Your task to perform on an android device: find photos in the google photos app Image 0: 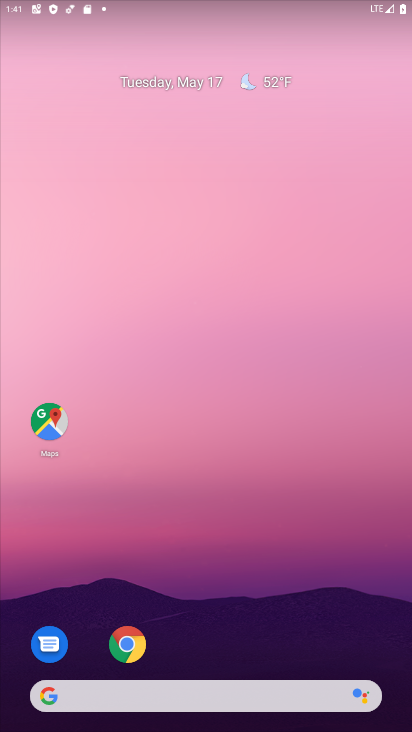
Step 0: drag from (238, 690) to (190, 202)
Your task to perform on an android device: find photos in the google photos app Image 1: 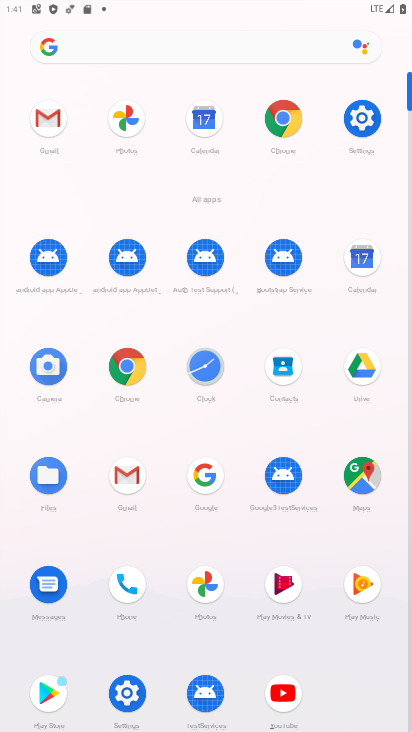
Step 1: click (196, 583)
Your task to perform on an android device: find photos in the google photos app Image 2: 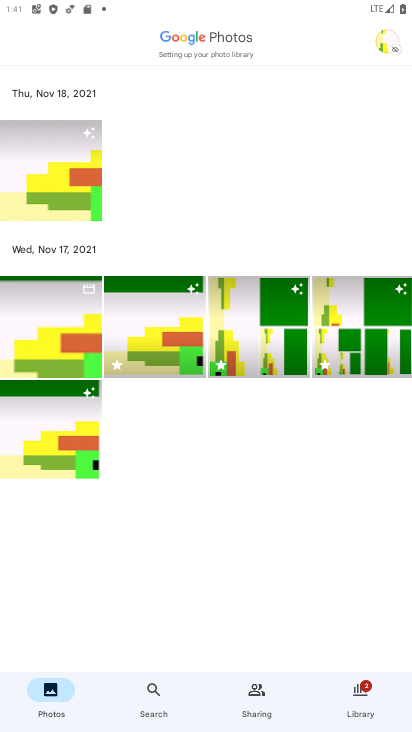
Step 2: task complete